Your task to perform on an android device: Add razer nari to the cart on amazon Image 0: 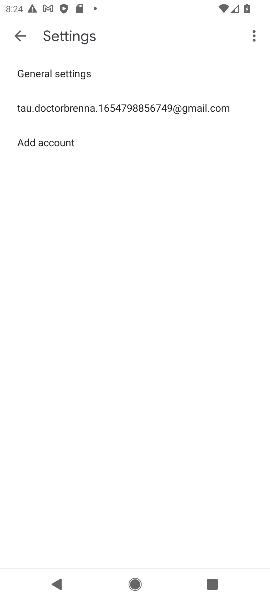
Step 0: press home button
Your task to perform on an android device: Add razer nari to the cart on amazon Image 1: 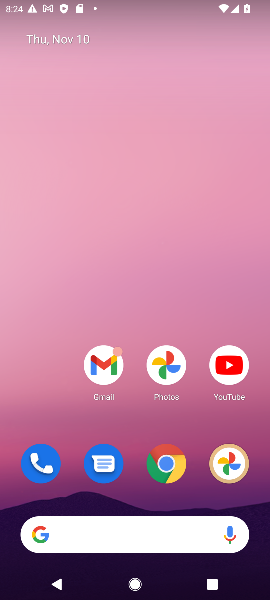
Step 1: click (162, 470)
Your task to perform on an android device: Add razer nari to the cart on amazon Image 2: 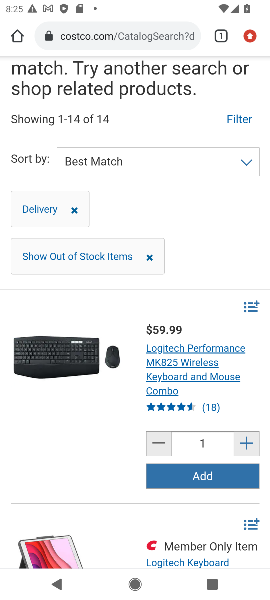
Step 2: click (128, 34)
Your task to perform on an android device: Add razer nari to the cart on amazon Image 3: 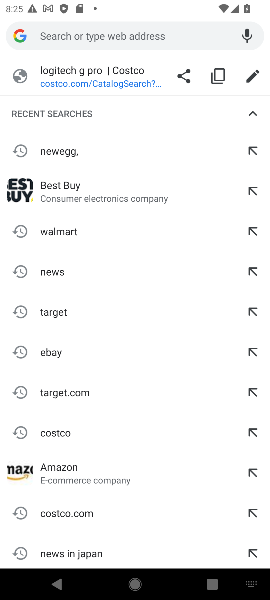
Step 3: click (57, 471)
Your task to perform on an android device: Add razer nari to the cart on amazon Image 4: 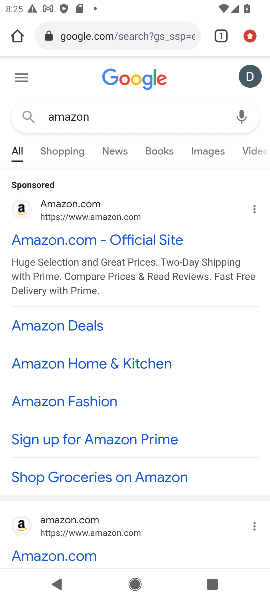
Step 4: click (46, 241)
Your task to perform on an android device: Add razer nari to the cart on amazon Image 5: 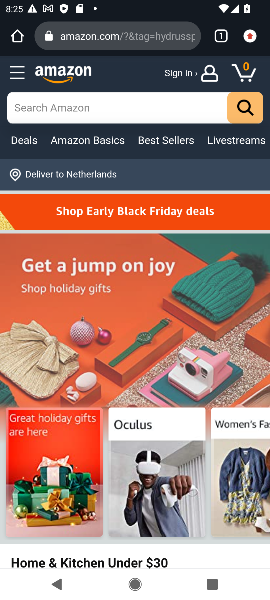
Step 5: click (143, 100)
Your task to perform on an android device: Add razer nari to the cart on amazon Image 6: 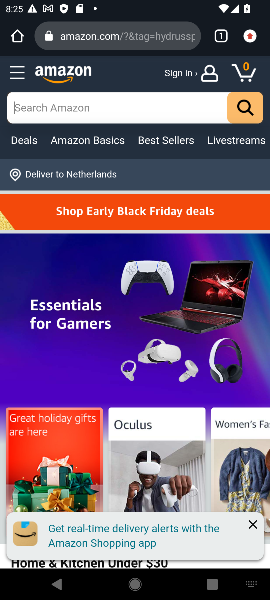
Step 6: type "razer nari"
Your task to perform on an android device: Add razer nari to the cart on amazon Image 7: 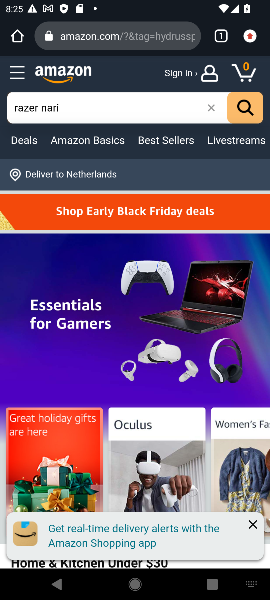
Step 7: press enter
Your task to perform on an android device: Add razer nari to the cart on amazon Image 8: 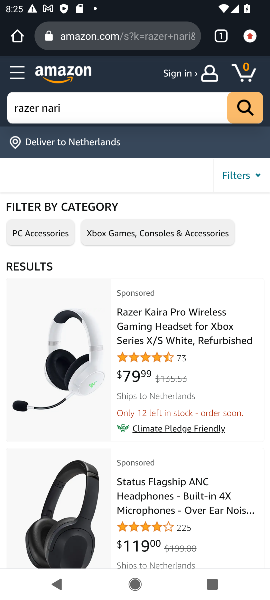
Step 8: drag from (192, 531) to (232, 222)
Your task to perform on an android device: Add razer nari to the cart on amazon Image 9: 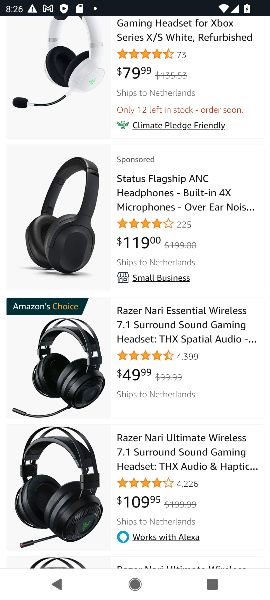
Step 9: click (183, 332)
Your task to perform on an android device: Add razer nari to the cart on amazon Image 10: 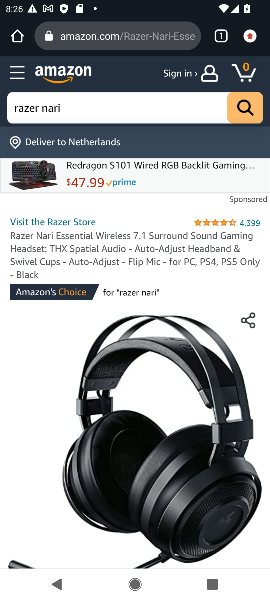
Step 10: drag from (28, 460) to (209, 115)
Your task to perform on an android device: Add razer nari to the cart on amazon Image 11: 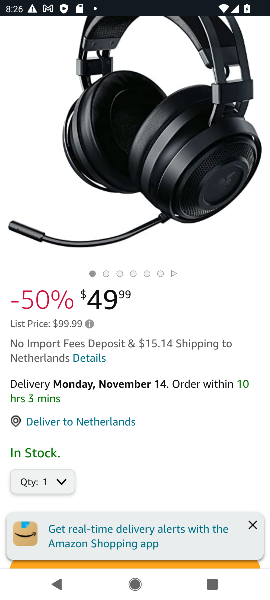
Step 11: drag from (122, 445) to (210, 221)
Your task to perform on an android device: Add razer nari to the cart on amazon Image 12: 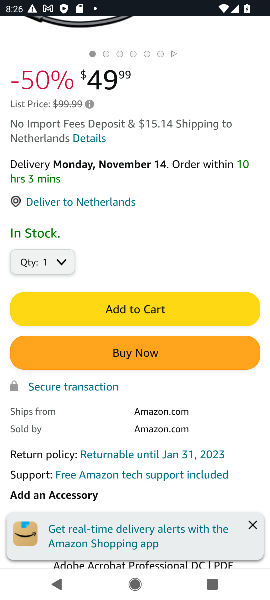
Step 12: click (140, 307)
Your task to perform on an android device: Add razer nari to the cart on amazon Image 13: 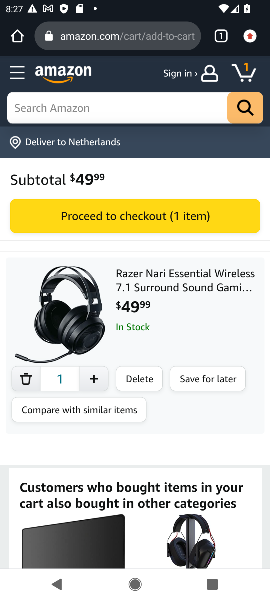
Step 13: task complete